Your task to perform on an android device: turn on airplane mode Image 0: 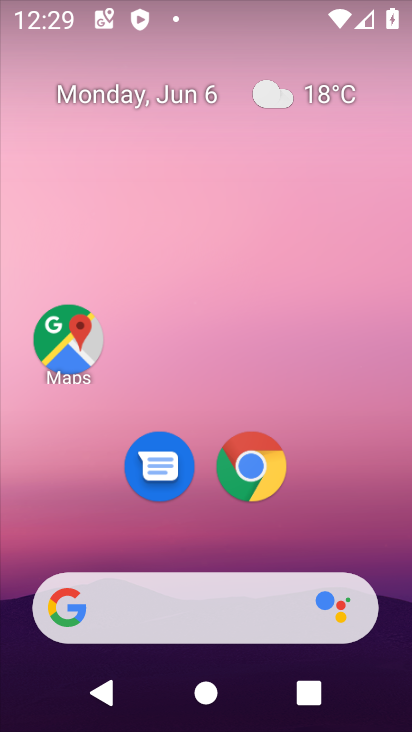
Step 0: drag from (353, 499) to (207, 38)
Your task to perform on an android device: turn on airplane mode Image 1: 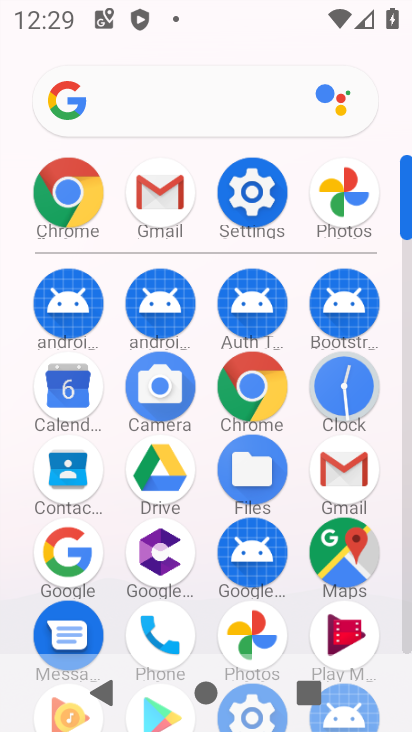
Step 1: drag from (7, 564) to (21, 236)
Your task to perform on an android device: turn on airplane mode Image 2: 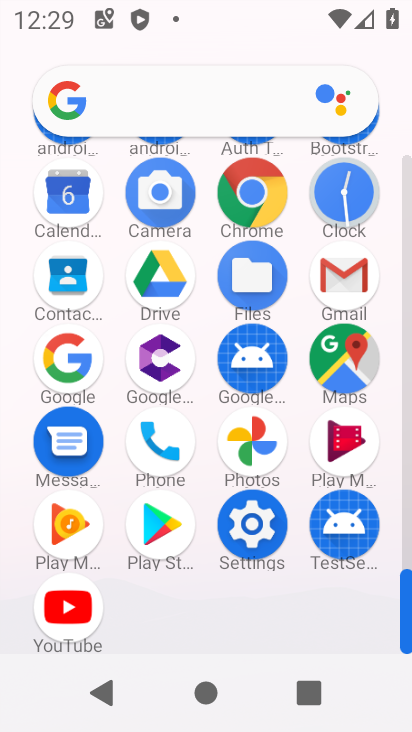
Step 2: click (252, 523)
Your task to perform on an android device: turn on airplane mode Image 3: 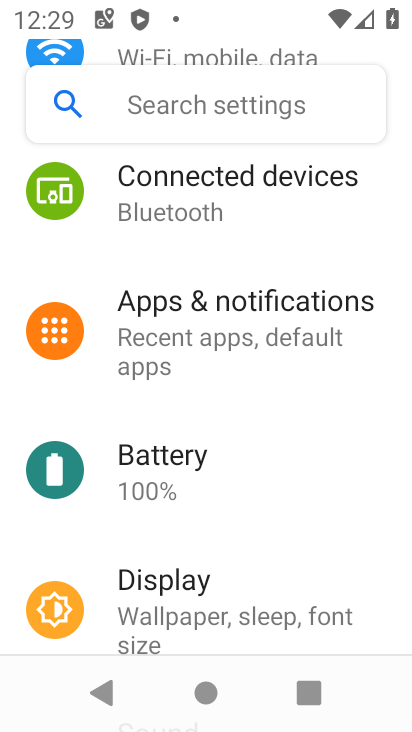
Step 3: drag from (313, 217) to (301, 599)
Your task to perform on an android device: turn on airplane mode Image 4: 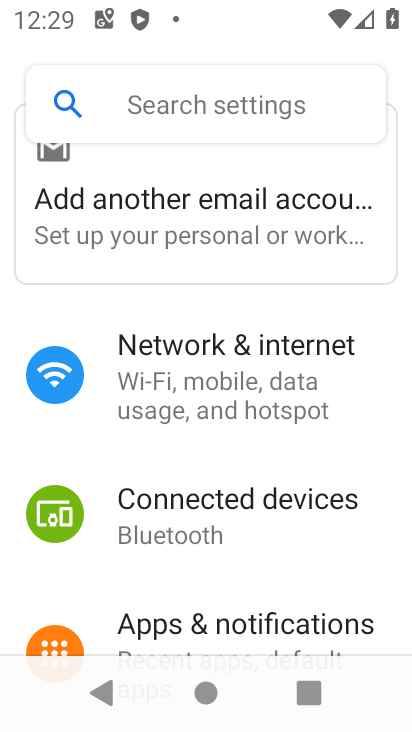
Step 4: click (291, 378)
Your task to perform on an android device: turn on airplane mode Image 5: 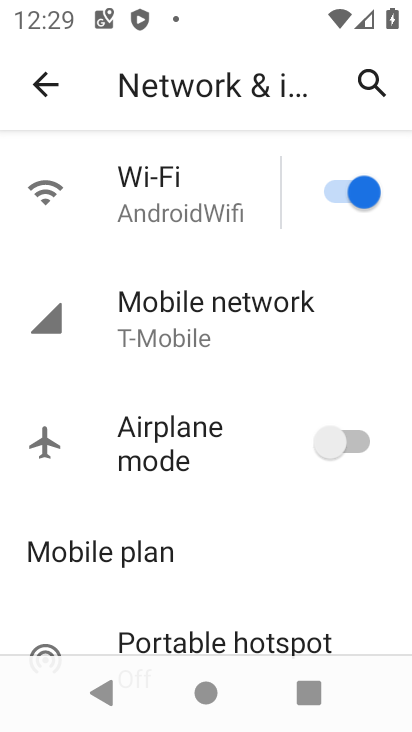
Step 5: click (321, 439)
Your task to perform on an android device: turn on airplane mode Image 6: 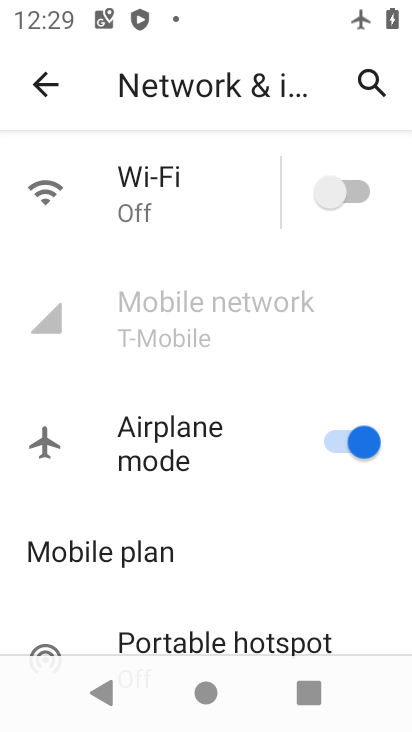
Step 6: task complete